Your task to perform on an android device: Open network settings Image 0: 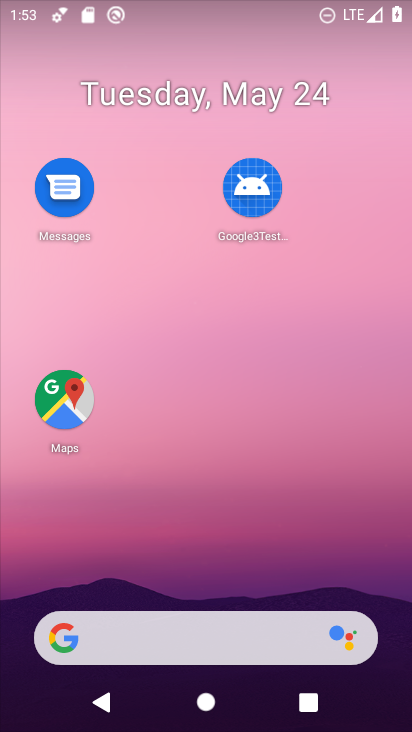
Step 0: drag from (225, 541) to (121, 7)
Your task to perform on an android device: Open network settings Image 1: 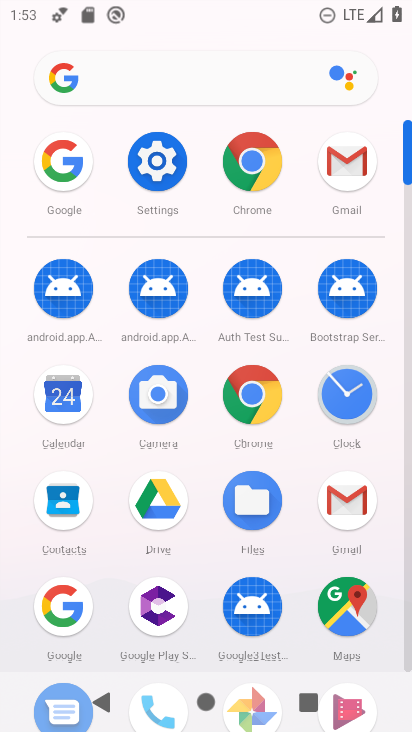
Step 1: click (252, 434)
Your task to perform on an android device: Open network settings Image 2: 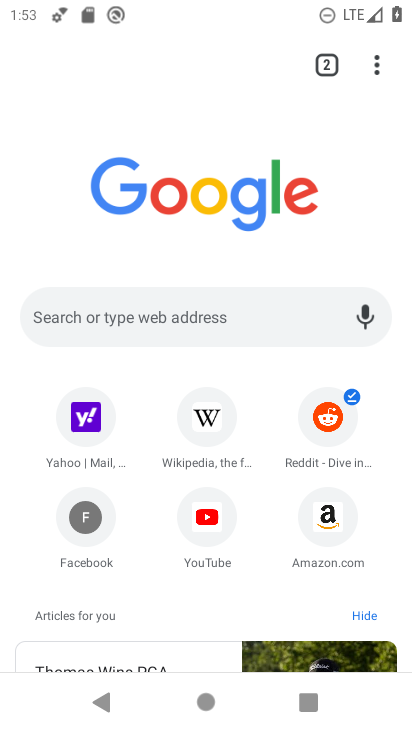
Step 2: drag from (267, 575) to (279, 260)
Your task to perform on an android device: Open network settings Image 3: 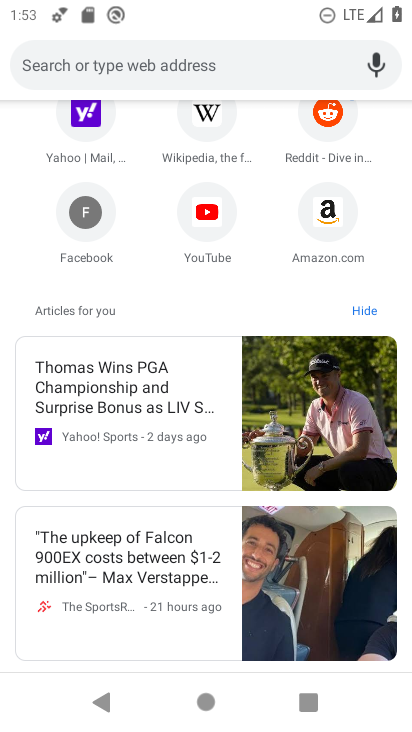
Step 3: drag from (259, 224) to (151, 730)
Your task to perform on an android device: Open network settings Image 4: 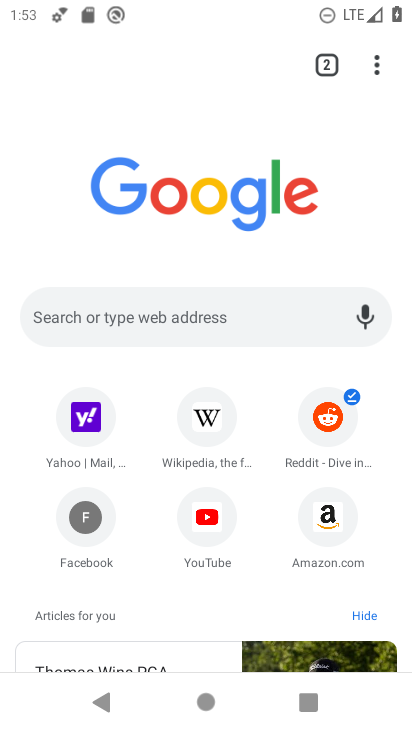
Step 4: press home button
Your task to perform on an android device: Open network settings Image 5: 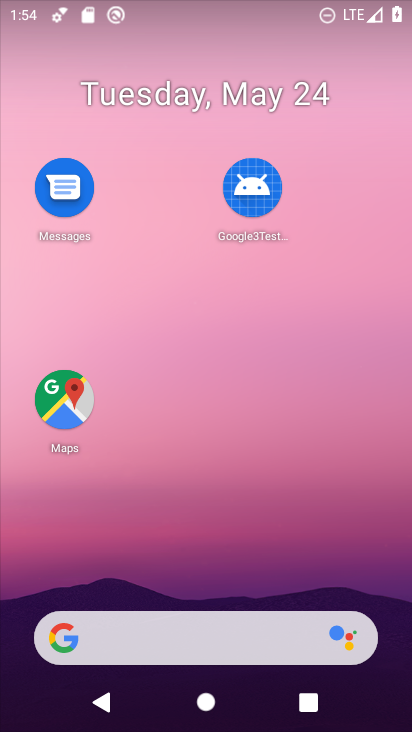
Step 5: click (185, 151)
Your task to perform on an android device: Open network settings Image 6: 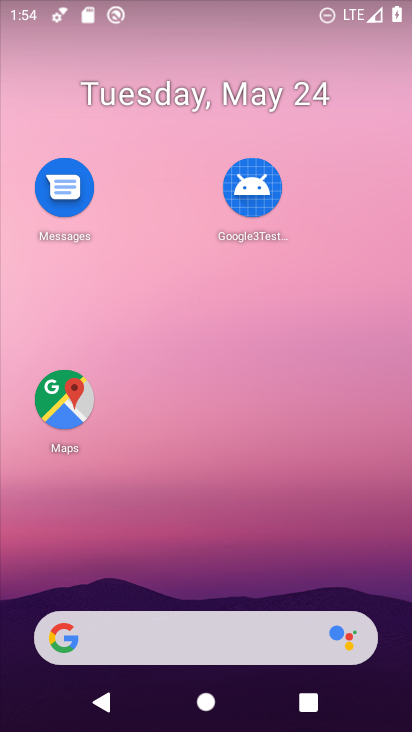
Step 6: drag from (232, 572) to (228, 52)
Your task to perform on an android device: Open network settings Image 7: 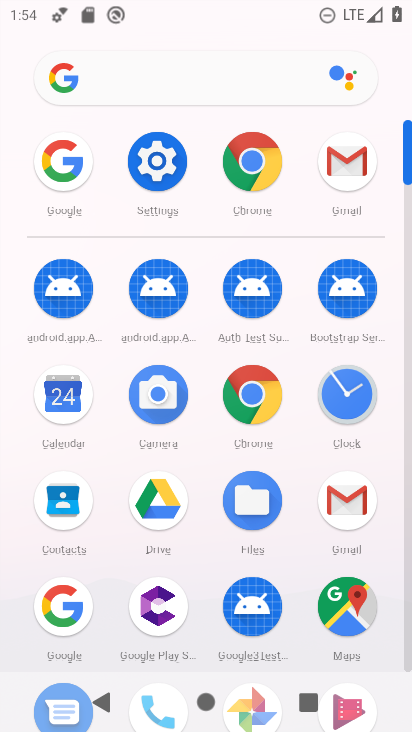
Step 7: click (175, 175)
Your task to perform on an android device: Open network settings Image 8: 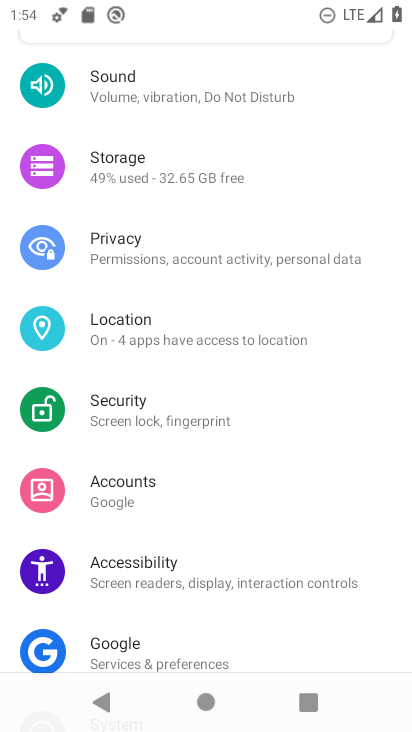
Step 8: drag from (180, 593) to (216, 31)
Your task to perform on an android device: Open network settings Image 9: 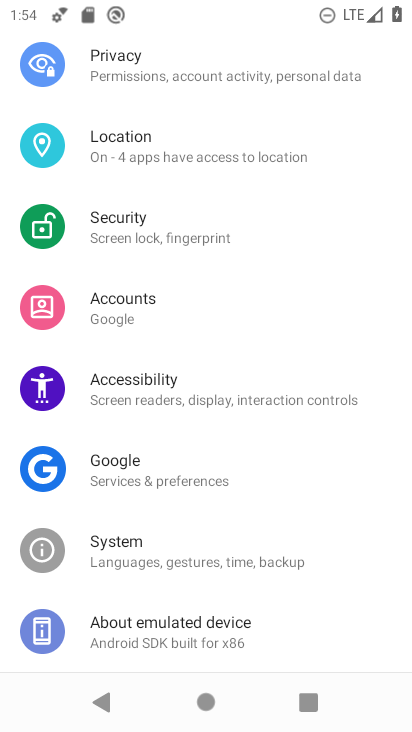
Step 9: drag from (170, 143) to (131, 570)
Your task to perform on an android device: Open network settings Image 10: 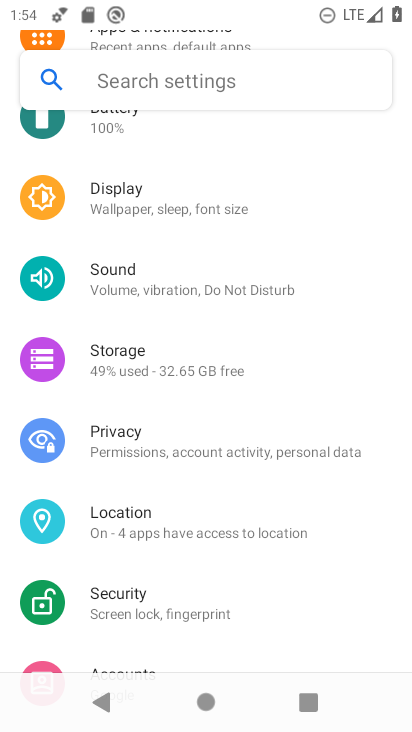
Step 10: drag from (205, 151) to (222, 678)
Your task to perform on an android device: Open network settings Image 11: 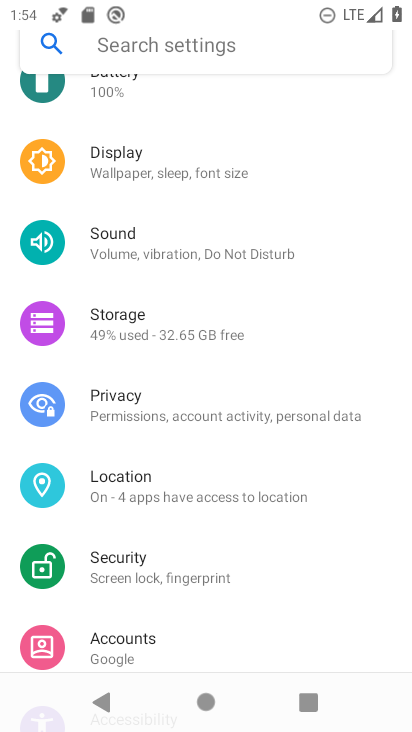
Step 11: drag from (190, 355) to (119, 701)
Your task to perform on an android device: Open network settings Image 12: 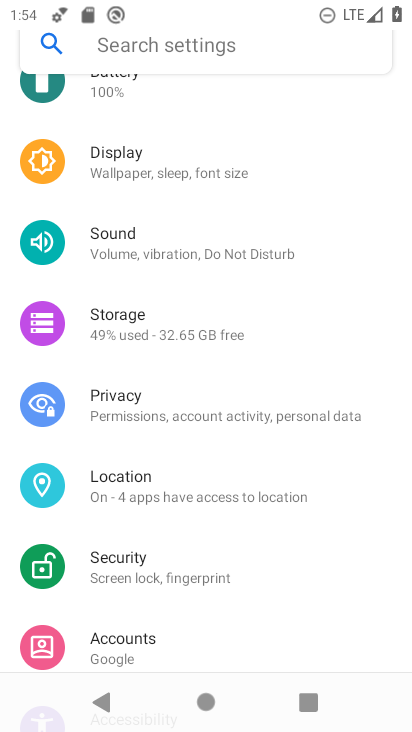
Step 12: drag from (156, 164) to (147, 526)
Your task to perform on an android device: Open network settings Image 13: 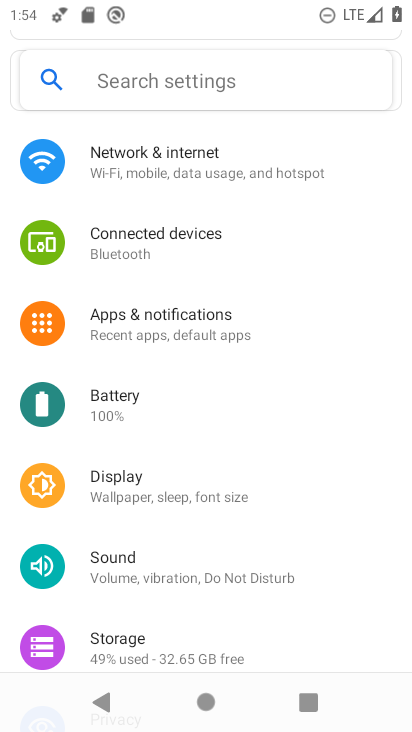
Step 13: click (182, 170)
Your task to perform on an android device: Open network settings Image 14: 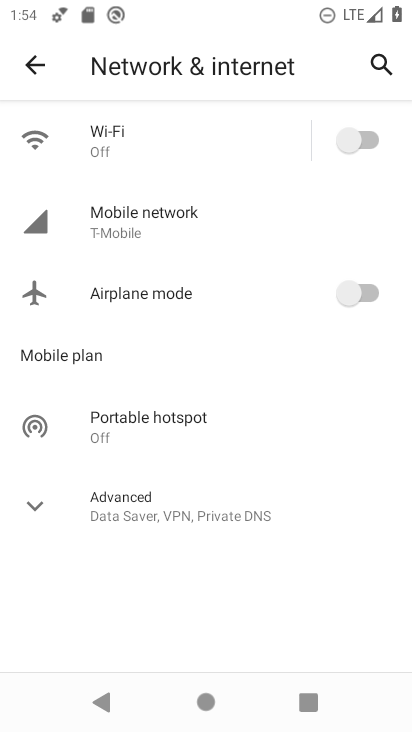
Step 14: task complete